Your task to perform on an android device: Open Google Maps and go to "Timeline" Image 0: 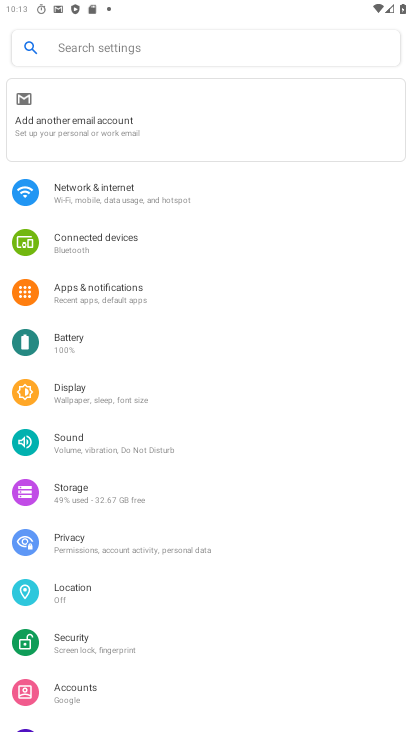
Step 0: press home button
Your task to perform on an android device: Open Google Maps and go to "Timeline" Image 1: 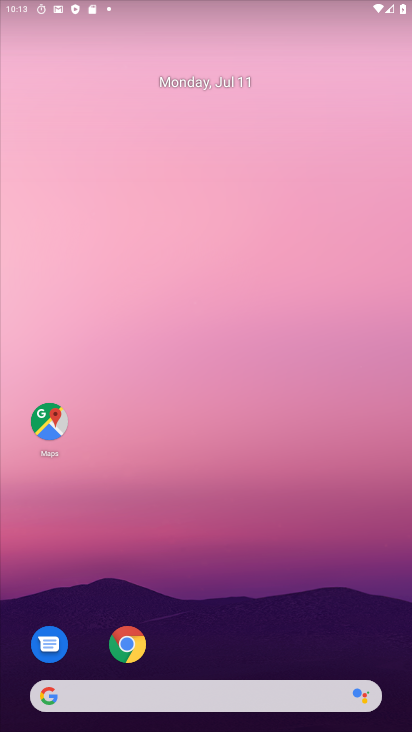
Step 1: drag from (209, 555) to (211, 148)
Your task to perform on an android device: Open Google Maps and go to "Timeline" Image 2: 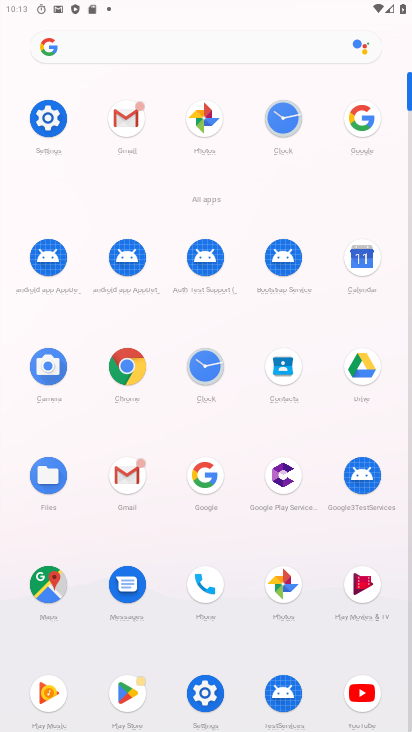
Step 2: click (49, 586)
Your task to perform on an android device: Open Google Maps and go to "Timeline" Image 3: 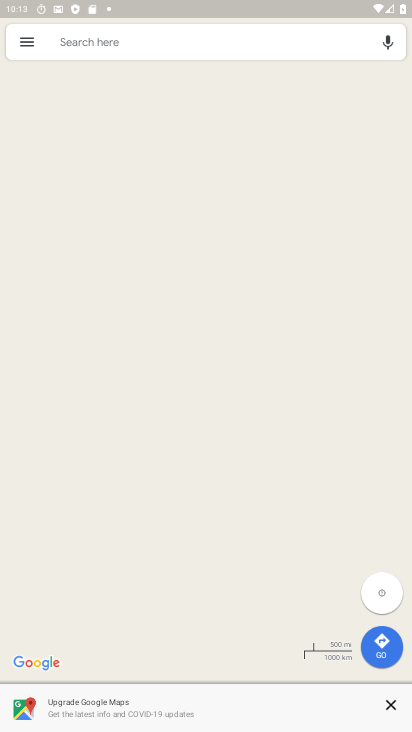
Step 3: click (29, 40)
Your task to perform on an android device: Open Google Maps and go to "Timeline" Image 4: 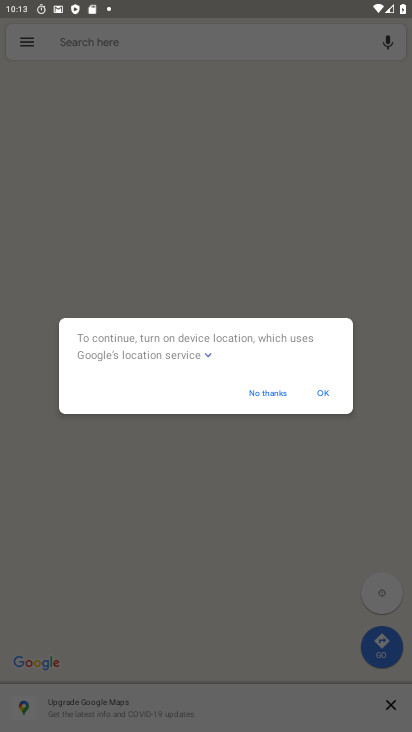
Step 4: click (290, 391)
Your task to perform on an android device: Open Google Maps and go to "Timeline" Image 5: 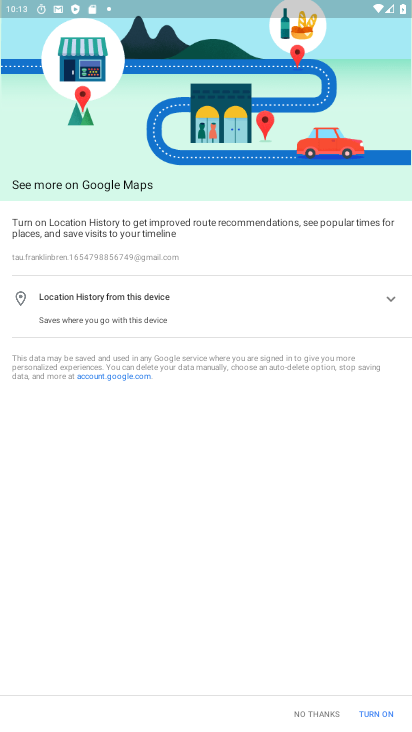
Step 5: click (316, 715)
Your task to perform on an android device: Open Google Maps and go to "Timeline" Image 6: 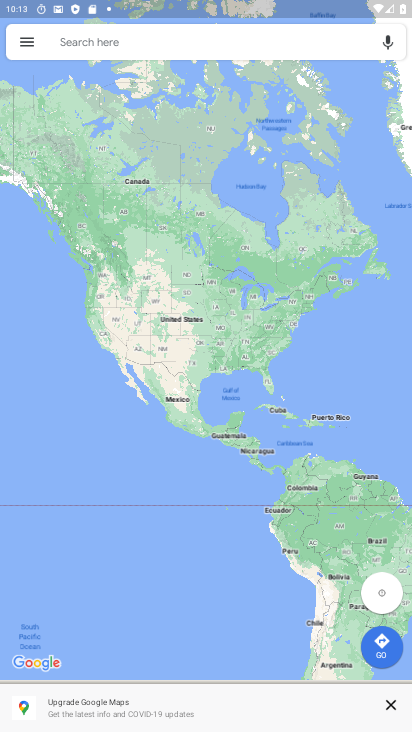
Step 6: click (25, 43)
Your task to perform on an android device: Open Google Maps and go to "Timeline" Image 7: 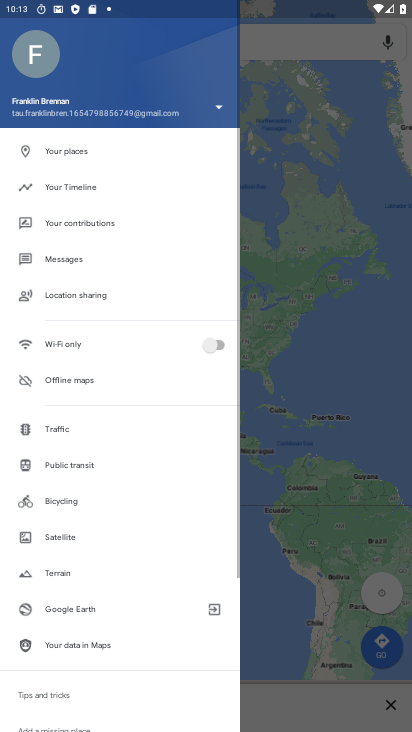
Step 7: click (81, 186)
Your task to perform on an android device: Open Google Maps and go to "Timeline" Image 8: 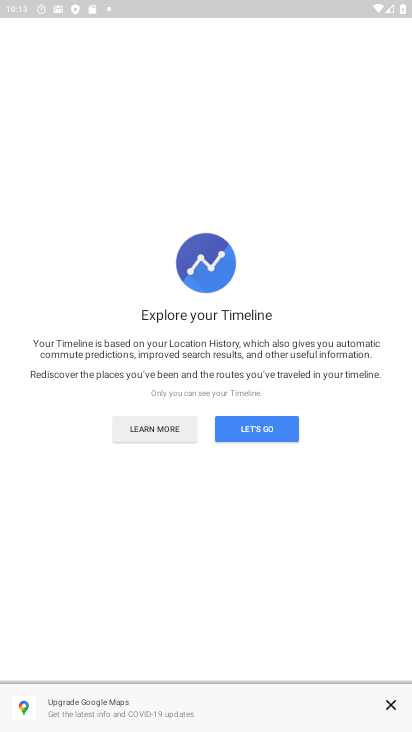
Step 8: click (258, 423)
Your task to perform on an android device: Open Google Maps and go to "Timeline" Image 9: 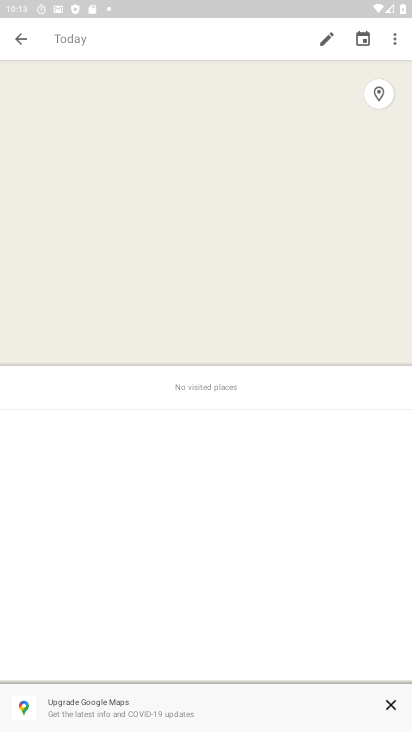
Step 9: task complete